Your task to perform on an android device: delete a single message in the gmail app Image 0: 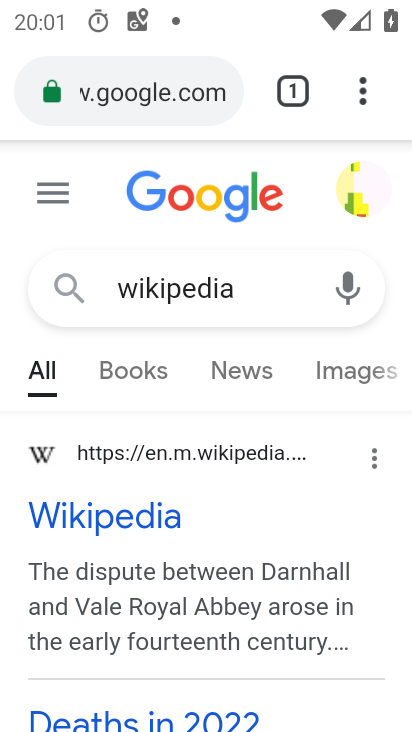
Step 0: press home button
Your task to perform on an android device: delete a single message in the gmail app Image 1: 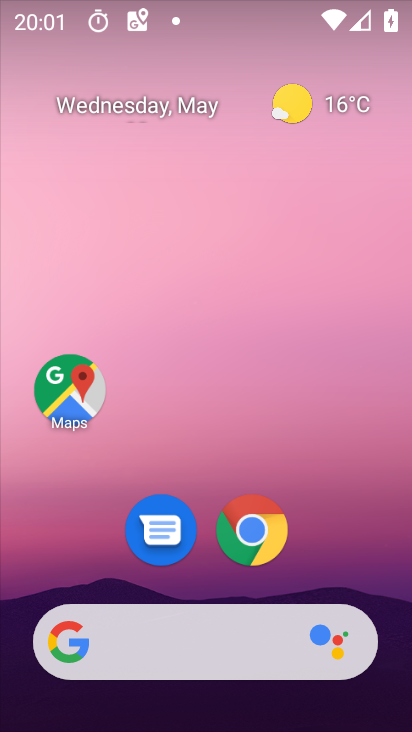
Step 1: drag from (85, 544) to (87, 146)
Your task to perform on an android device: delete a single message in the gmail app Image 2: 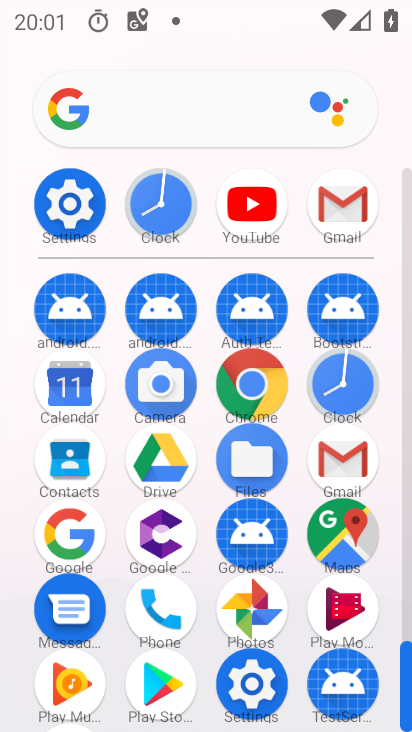
Step 2: click (333, 464)
Your task to perform on an android device: delete a single message in the gmail app Image 3: 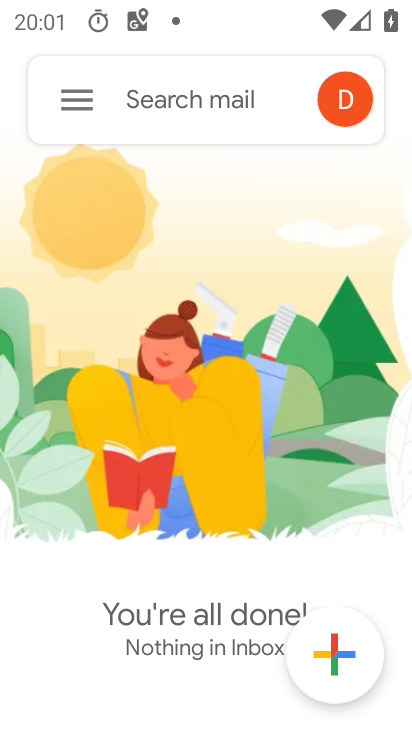
Step 3: click (77, 96)
Your task to perform on an android device: delete a single message in the gmail app Image 4: 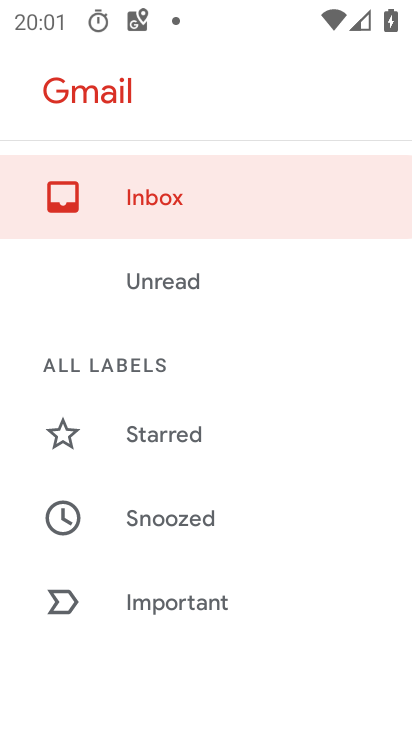
Step 4: drag from (166, 467) to (127, 96)
Your task to perform on an android device: delete a single message in the gmail app Image 5: 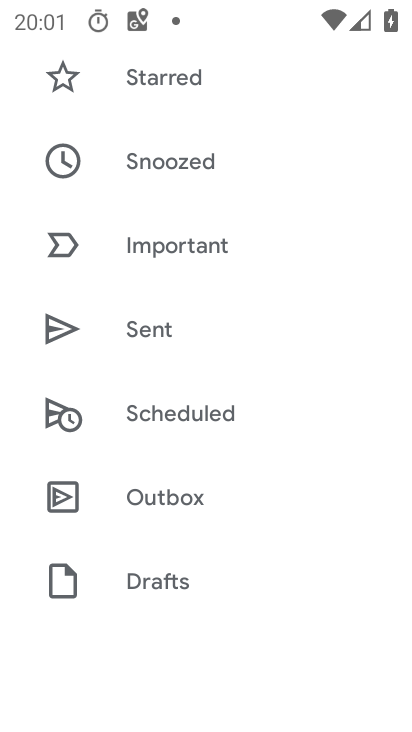
Step 5: drag from (150, 584) to (150, 212)
Your task to perform on an android device: delete a single message in the gmail app Image 6: 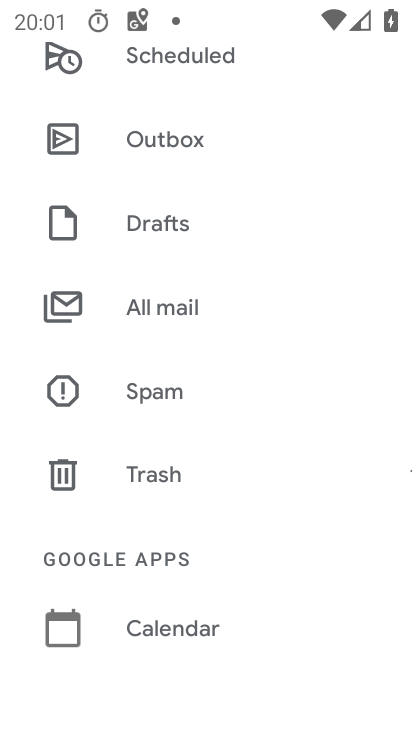
Step 6: click (165, 318)
Your task to perform on an android device: delete a single message in the gmail app Image 7: 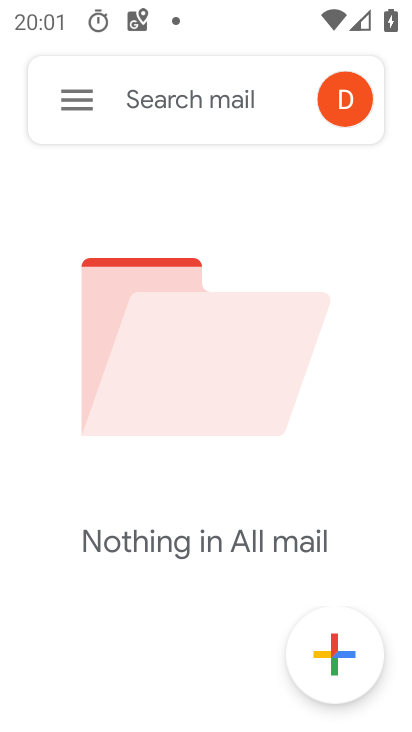
Step 7: task complete